Your task to perform on an android device: Go to sound settings Image 0: 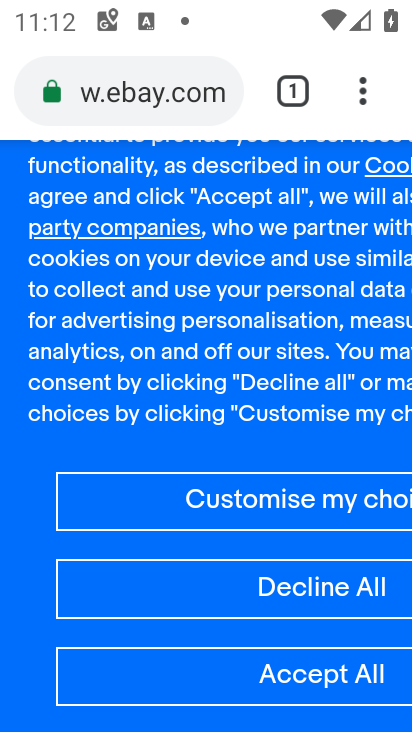
Step 0: press home button
Your task to perform on an android device: Go to sound settings Image 1: 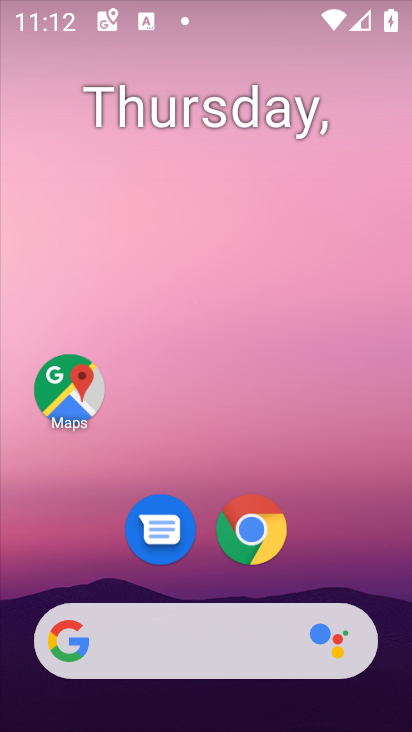
Step 1: drag from (276, 620) to (277, 18)
Your task to perform on an android device: Go to sound settings Image 2: 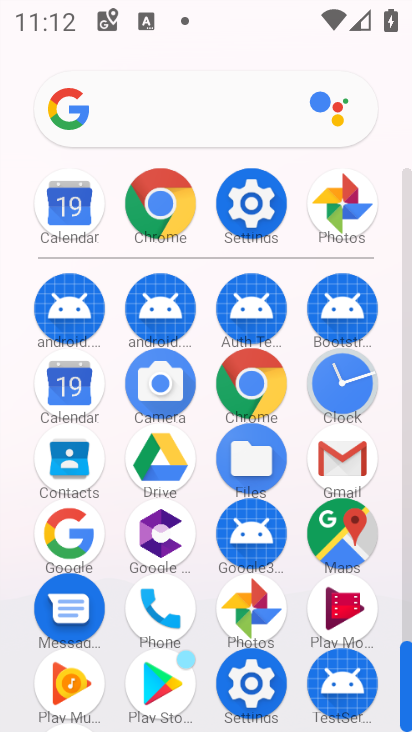
Step 2: click (231, 210)
Your task to perform on an android device: Go to sound settings Image 3: 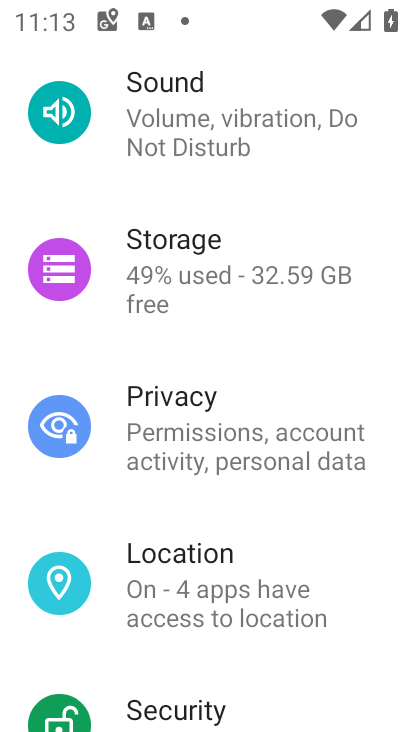
Step 3: click (238, 125)
Your task to perform on an android device: Go to sound settings Image 4: 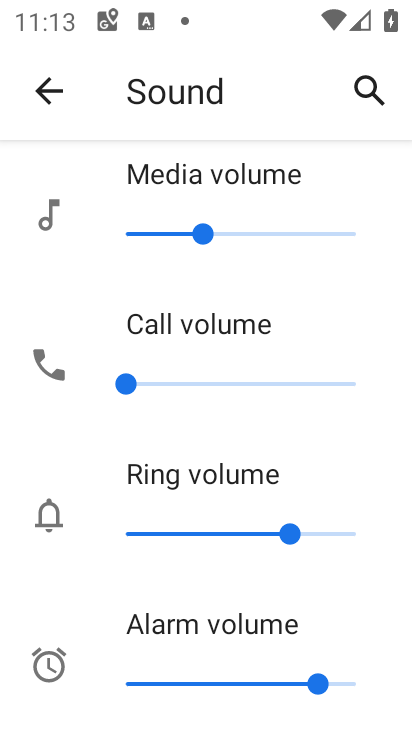
Step 4: task complete